Your task to perform on an android device: delete browsing data in the chrome app Image 0: 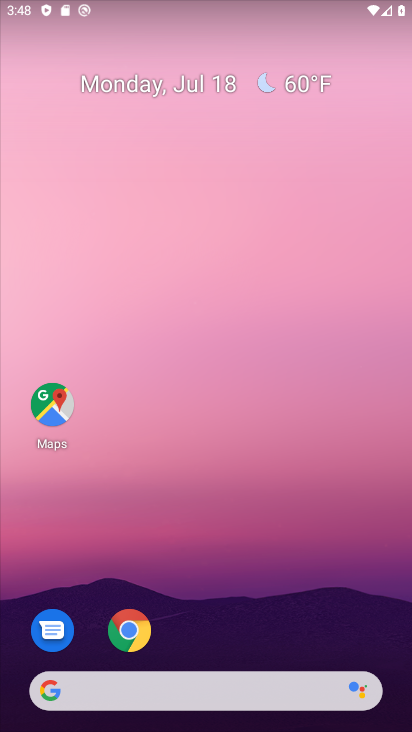
Step 0: drag from (283, 7) to (205, 309)
Your task to perform on an android device: delete browsing data in the chrome app Image 1: 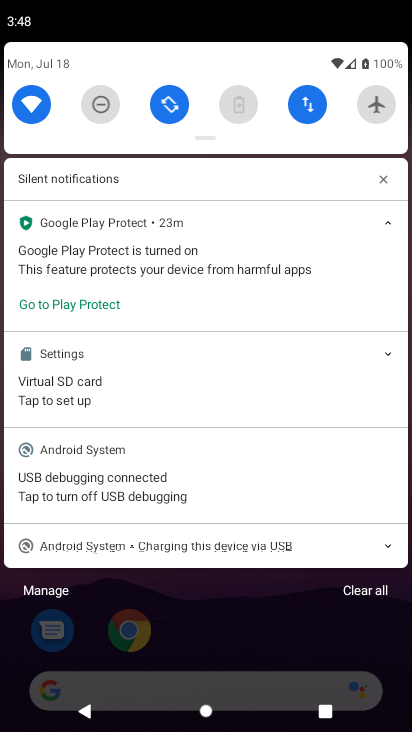
Step 1: click (41, 106)
Your task to perform on an android device: delete browsing data in the chrome app Image 2: 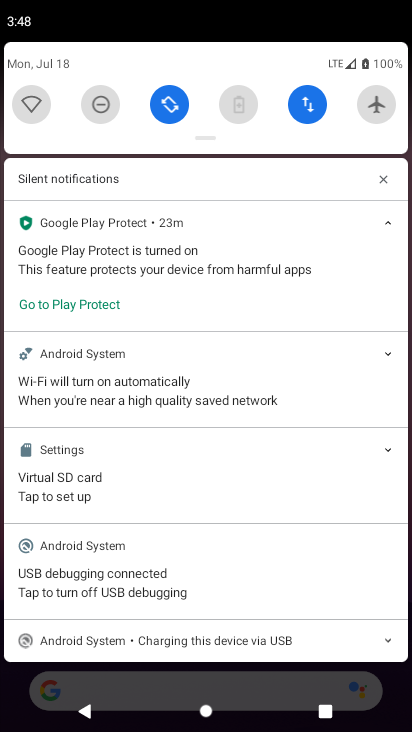
Step 2: task complete